Your task to perform on an android device: When is my next meeting? Image 0: 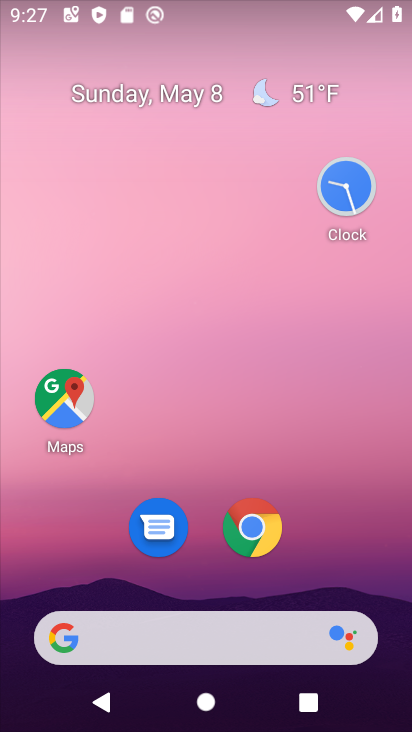
Step 0: drag from (276, 556) to (282, 47)
Your task to perform on an android device: When is my next meeting? Image 1: 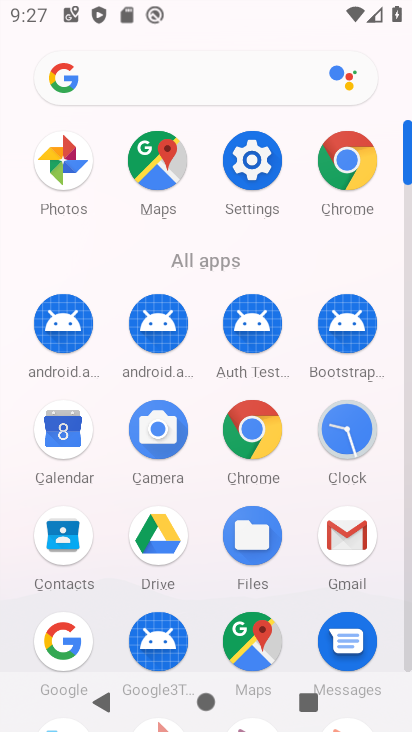
Step 1: drag from (310, 574) to (314, 257)
Your task to perform on an android device: When is my next meeting? Image 2: 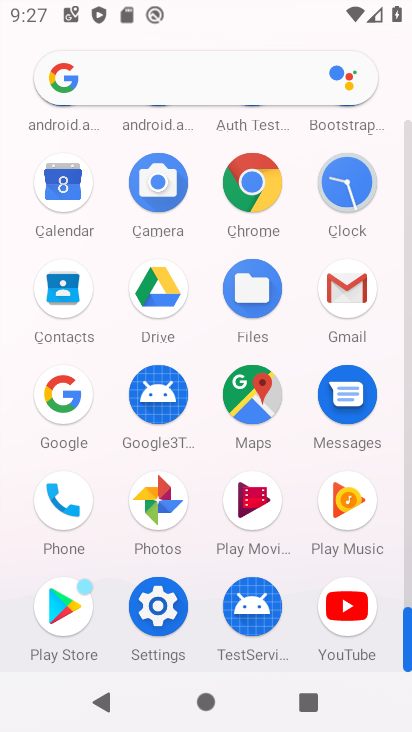
Step 2: click (69, 194)
Your task to perform on an android device: When is my next meeting? Image 3: 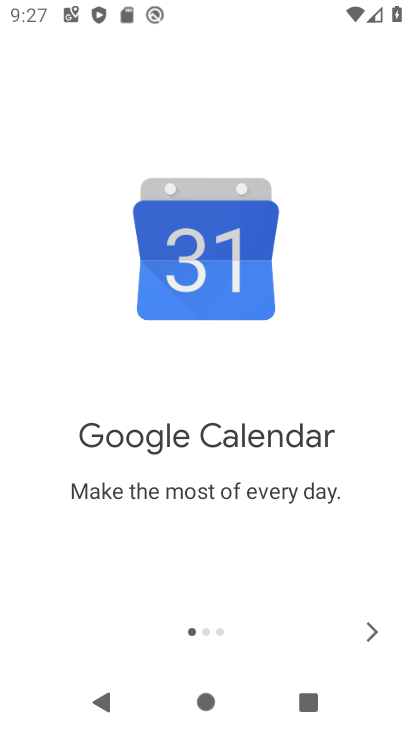
Step 3: click (370, 627)
Your task to perform on an android device: When is my next meeting? Image 4: 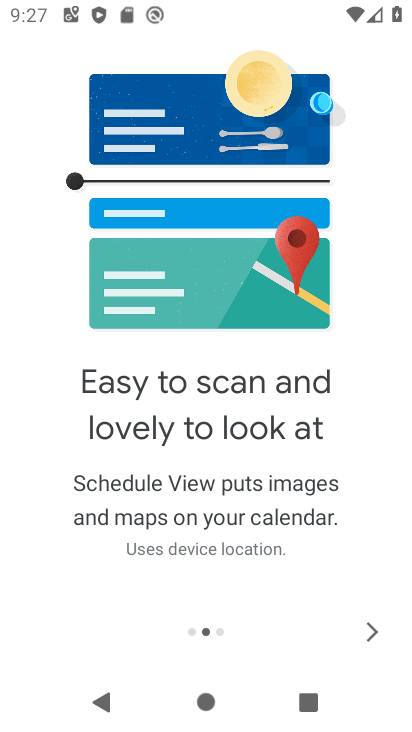
Step 4: click (370, 627)
Your task to perform on an android device: When is my next meeting? Image 5: 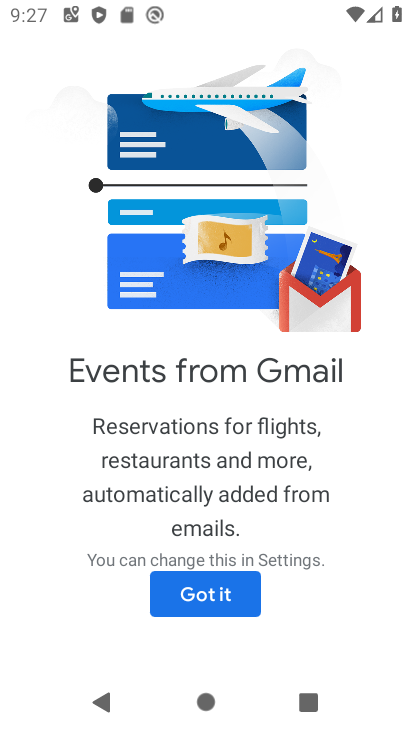
Step 5: click (222, 595)
Your task to perform on an android device: When is my next meeting? Image 6: 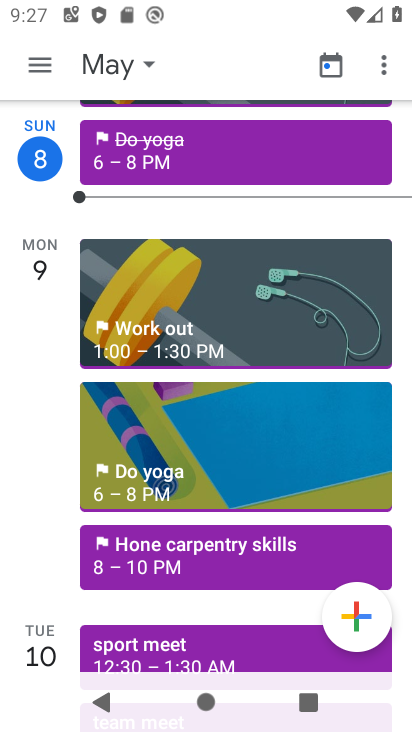
Step 6: click (42, 62)
Your task to perform on an android device: When is my next meeting? Image 7: 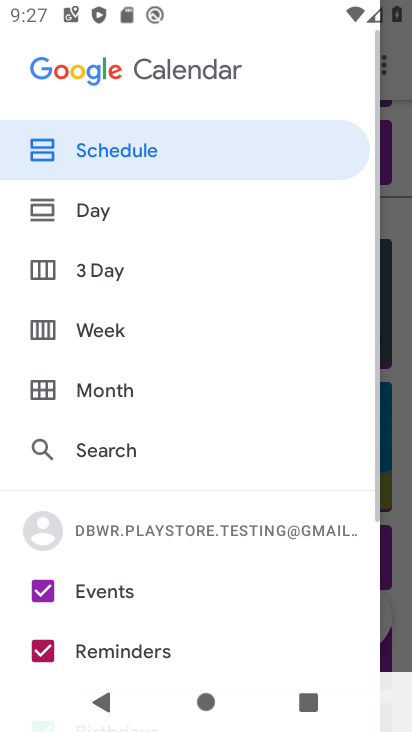
Step 7: drag from (186, 529) to (262, 536)
Your task to perform on an android device: When is my next meeting? Image 8: 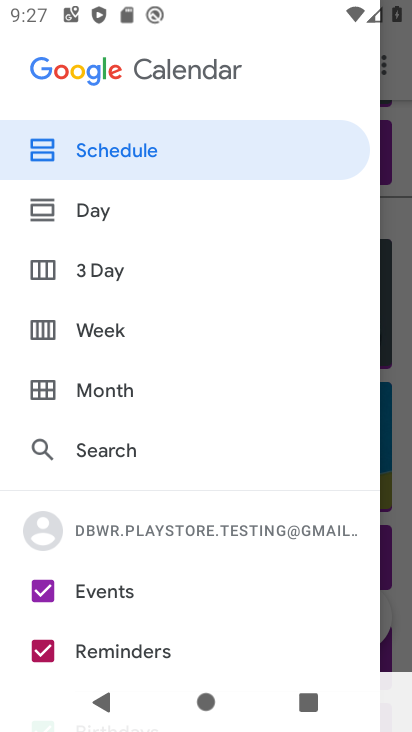
Step 8: click (161, 145)
Your task to perform on an android device: When is my next meeting? Image 9: 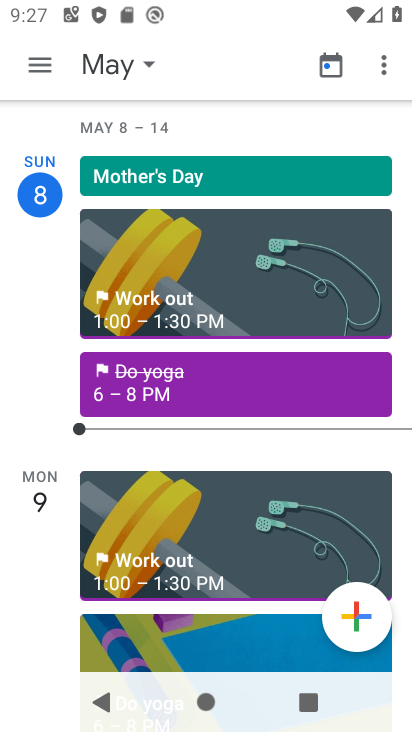
Step 9: task complete